Your task to perform on an android device: change notifications settings Image 0: 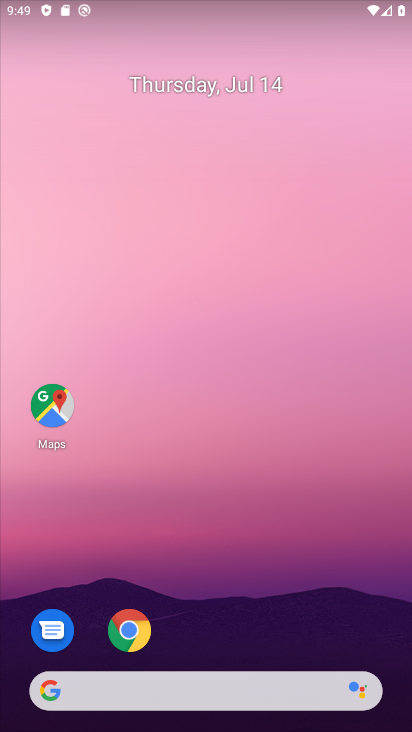
Step 0: drag from (195, 538) to (209, 177)
Your task to perform on an android device: change notifications settings Image 1: 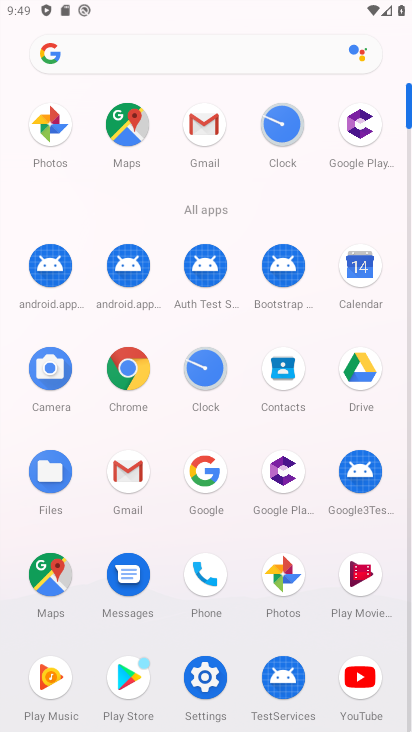
Step 1: click (209, 672)
Your task to perform on an android device: change notifications settings Image 2: 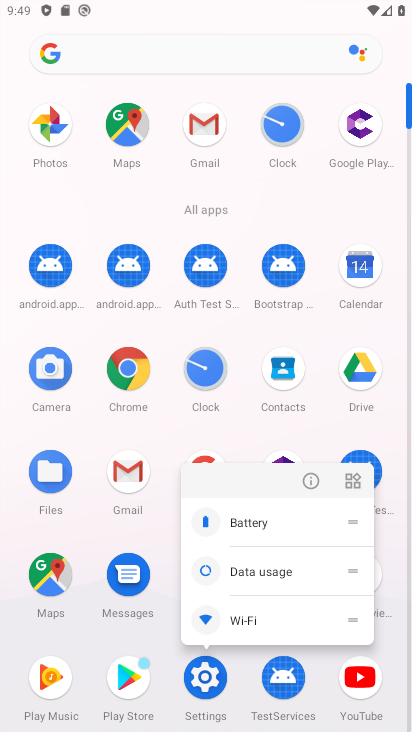
Step 2: click (305, 478)
Your task to perform on an android device: change notifications settings Image 3: 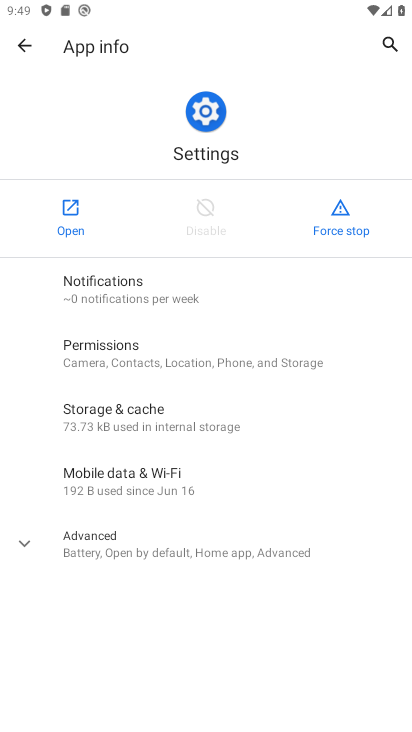
Step 3: click (69, 218)
Your task to perform on an android device: change notifications settings Image 4: 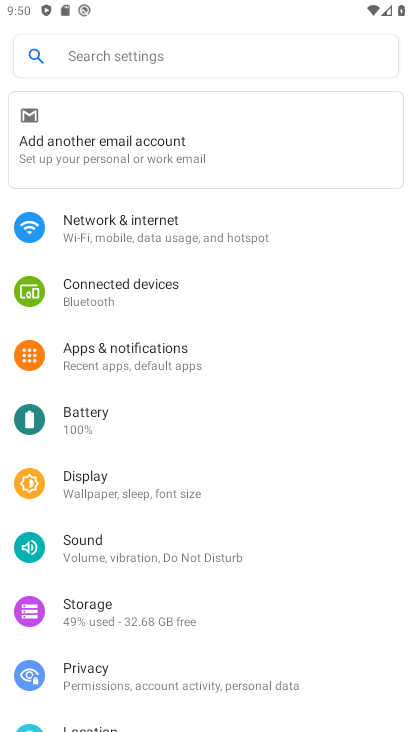
Step 4: click (118, 360)
Your task to perform on an android device: change notifications settings Image 5: 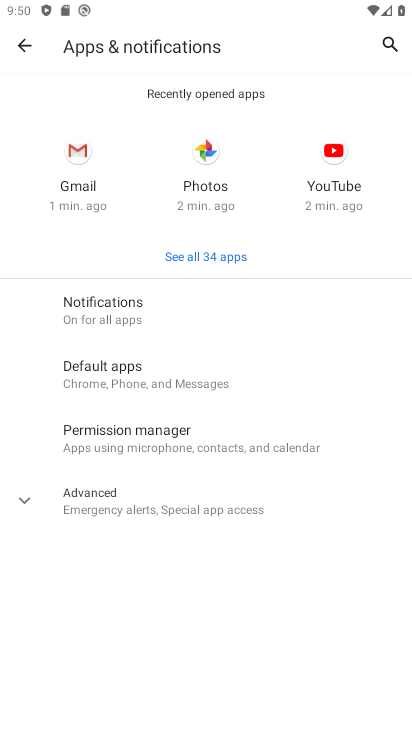
Step 5: click (124, 294)
Your task to perform on an android device: change notifications settings Image 6: 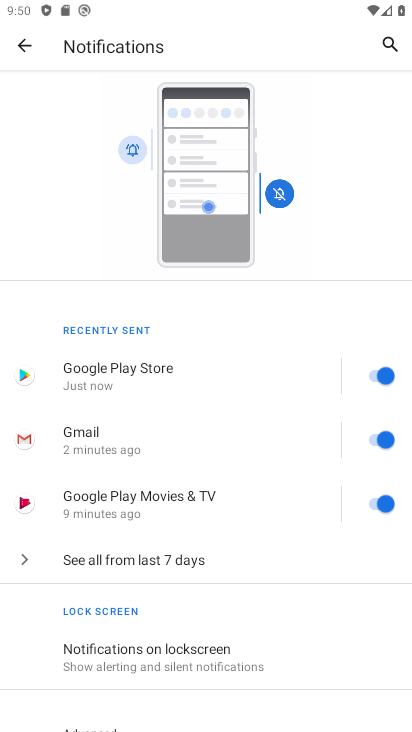
Step 6: click (368, 380)
Your task to perform on an android device: change notifications settings Image 7: 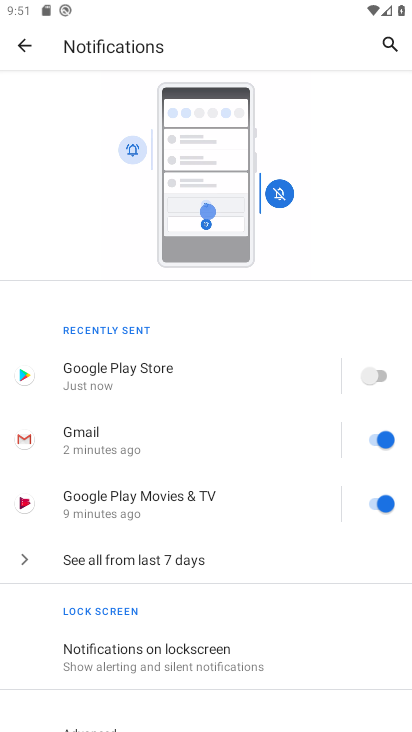
Step 7: task complete